Your task to perform on an android device: Do I have any events this weekend? Image 0: 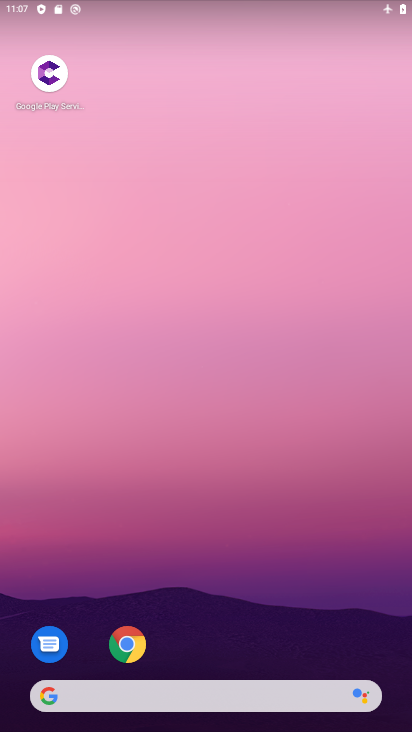
Step 0: drag from (210, 662) to (229, 187)
Your task to perform on an android device: Do I have any events this weekend? Image 1: 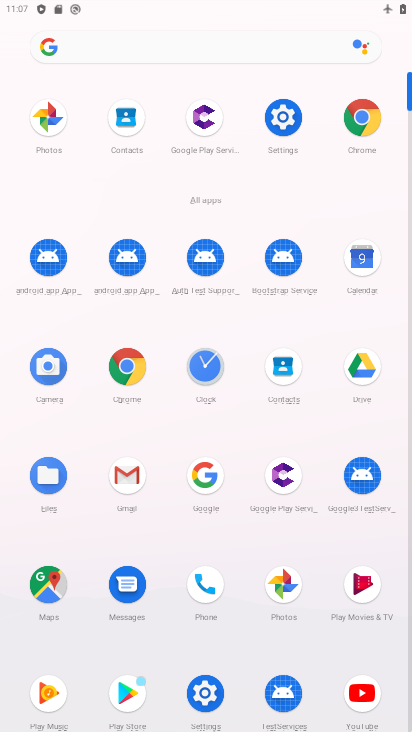
Step 1: click (363, 269)
Your task to perform on an android device: Do I have any events this weekend? Image 2: 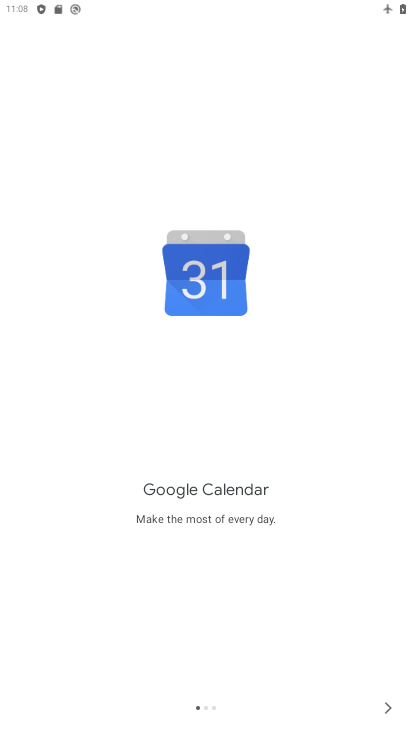
Step 2: click (384, 709)
Your task to perform on an android device: Do I have any events this weekend? Image 3: 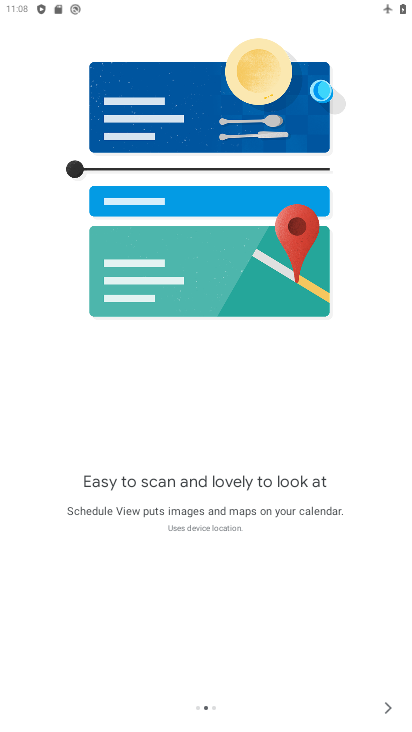
Step 3: click (384, 709)
Your task to perform on an android device: Do I have any events this weekend? Image 4: 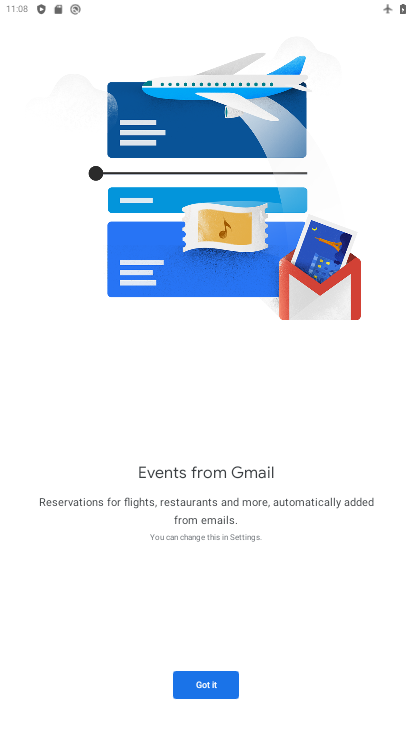
Step 4: click (230, 683)
Your task to perform on an android device: Do I have any events this weekend? Image 5: 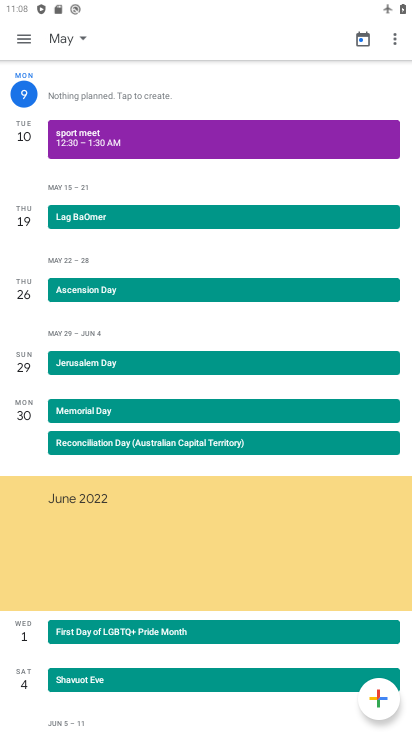
Step 5: click (78, 38)
Your task to perform on an android device: Do I have any events this weekend? Image 6: 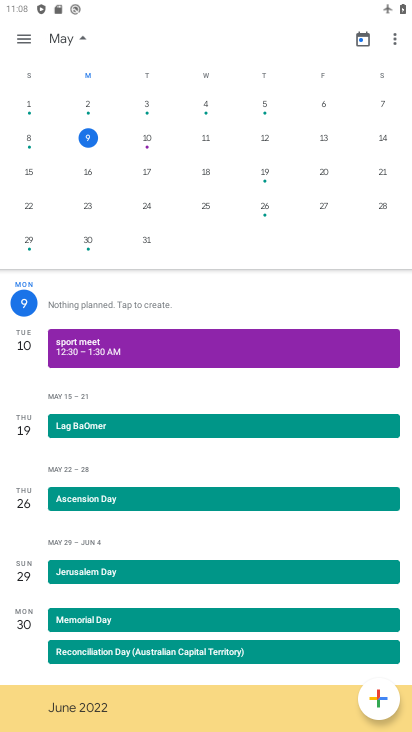
Step 6: click (385, 141)
Your task to perform on an android device: Do I have any events this weekend? Image 7: 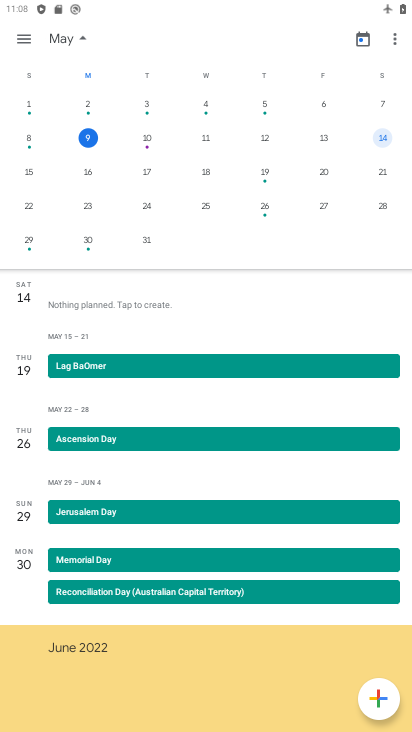
Step 7: task complete